Your task to perform on an android device: check android version Image 0: 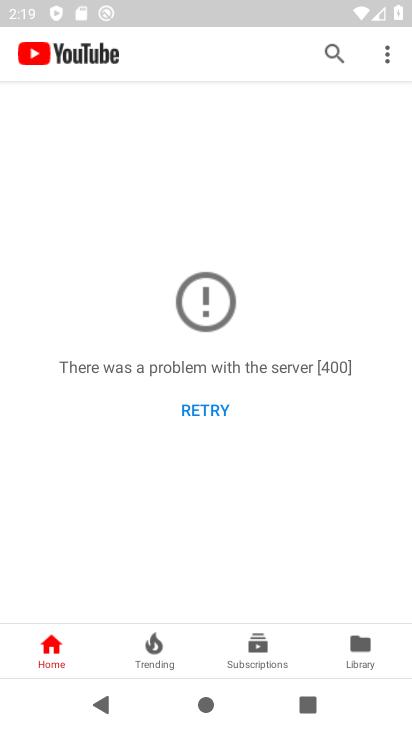
Step 0: press home button
Your task to perform on an android device: check android version Image 1: 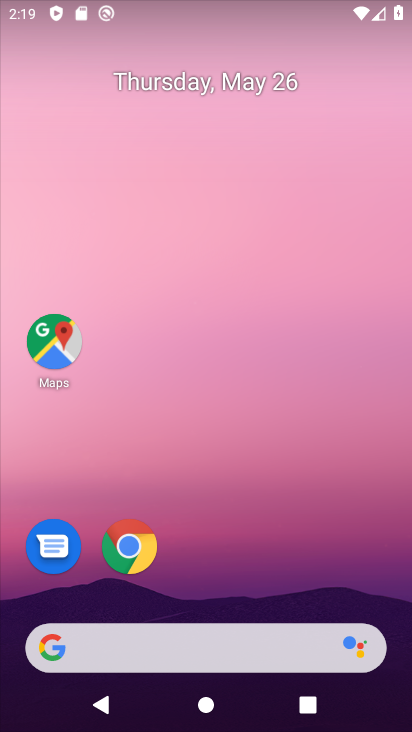
Step 1: drag from (399, 687) to (397, 271)
Your task to perform on an android device: check android version Image 2: 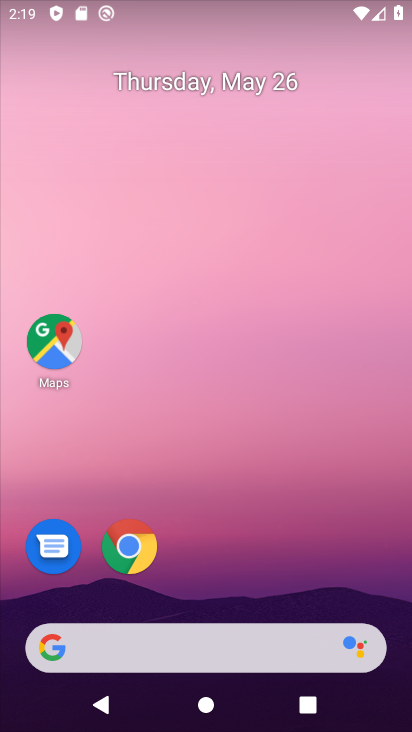
Step 2: drag from (395, 564) to (387, 178)
Your task to perform on an android device: check android version Image 3: 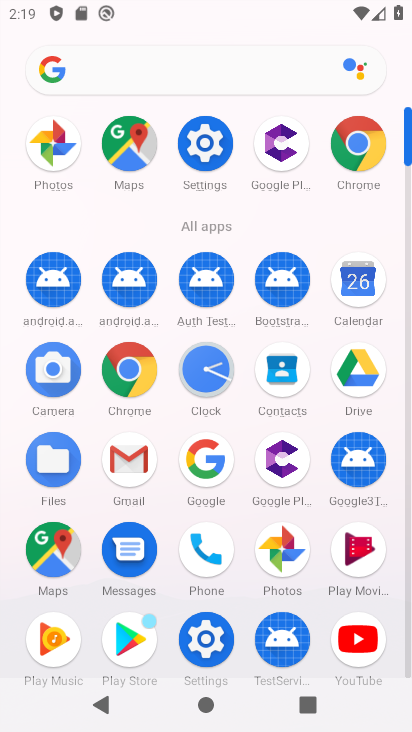
Step 3: click (195, 624)
Your task to perform on an android device: check android version Image 4: 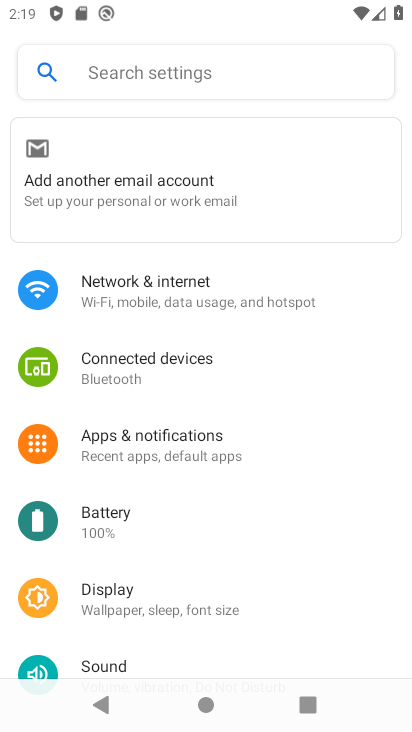
Step 4: drag from (350, 654) to (381, 203)
Your task to perform on an android device: check android version Image 5: 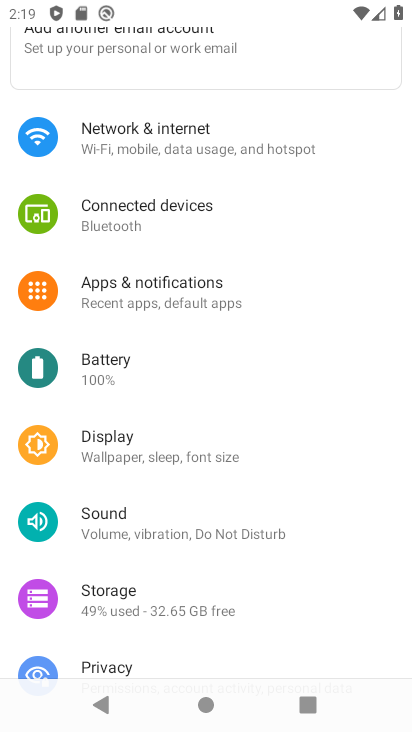
Step 5: drag from (331, 649) to (367, 277)
Your task to perform on an android device: check android version Image 6: 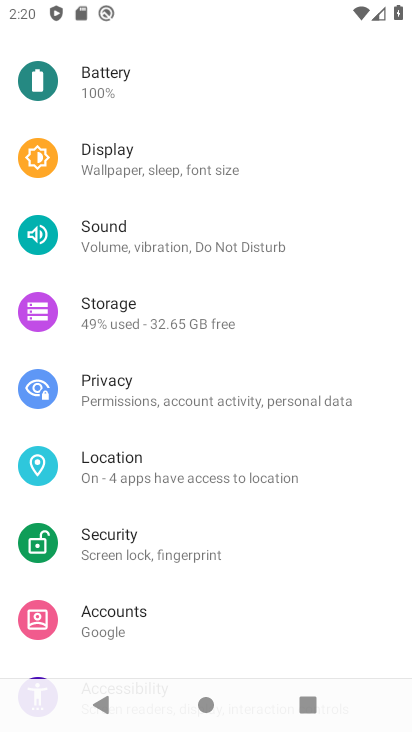
Step 6: drag from (288, 647) to (331, 285)
Your task to perform on an android device: check android version Image 7: 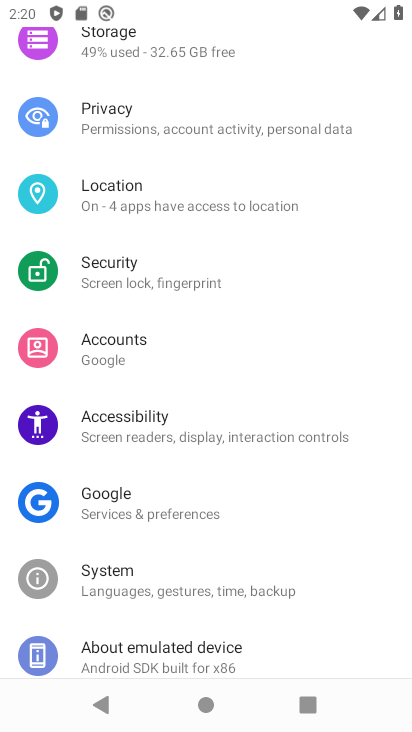
Step 7: drag from (304, 647) to (302, 309)
Your task to perform on an android device: check android version Image 8: 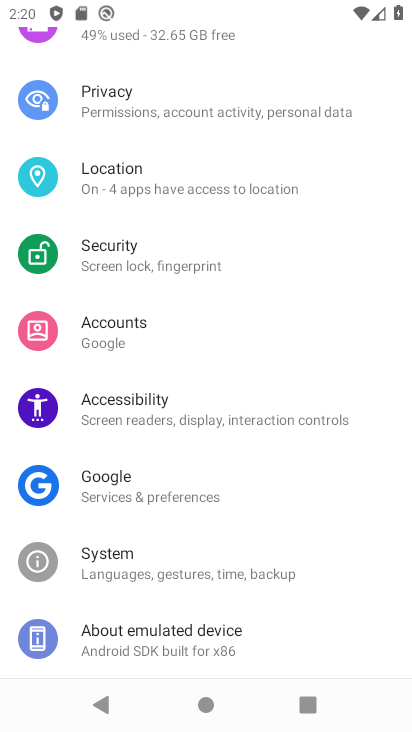
Step 8: click (157, 631)
Your task to perform on an android device: check android version Image 9: 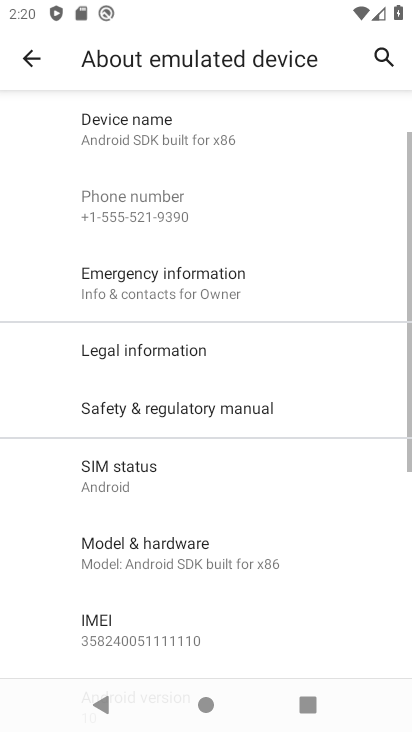
Step 9: drag from (313, 623) to (353, 222)
Your task to perform on an android device: check android version Image 10: 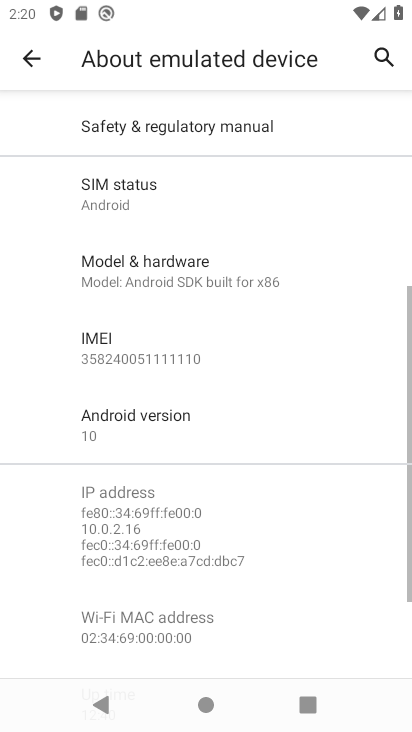
Step 10: drag from (284, 616) to (302, 302)
Your task to perform on an android device: check android version Image 11: 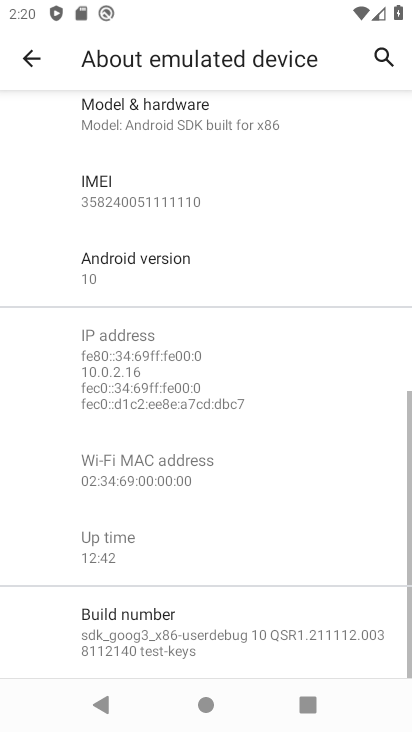
Step 11: click (128, 255)
Your task to perform on an android device: check android version Image 12: 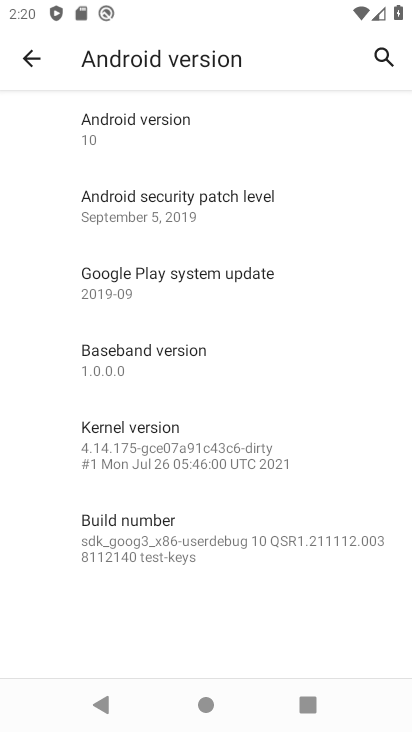
Step 12: task complete